Your task to perform on an android device: Open Google Chrome and click the shortcut for Amazon.com Image 0: 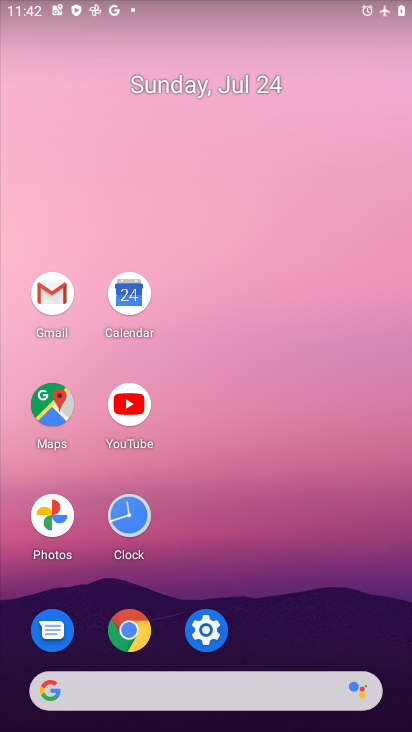
Step 0: click (129, 624)
Your task to perform on an android device: Open Google Chrome and click the shortcut for Amazon.com Image 1: 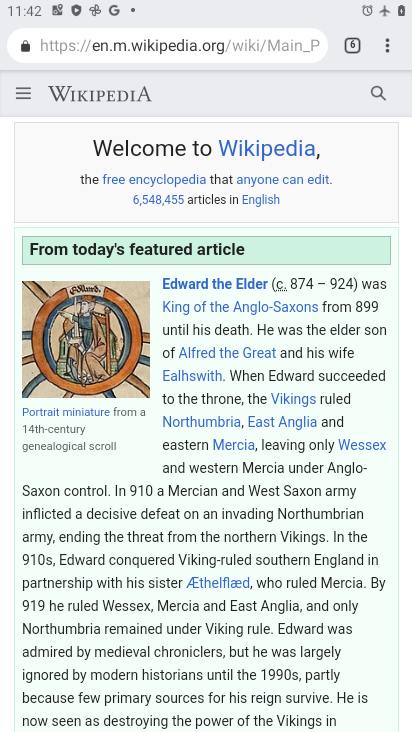
Step 1: click (387, 42)
Your task to perform on an android device: Open Google Chrome and click the shortcut for Amazon.com Image 2: 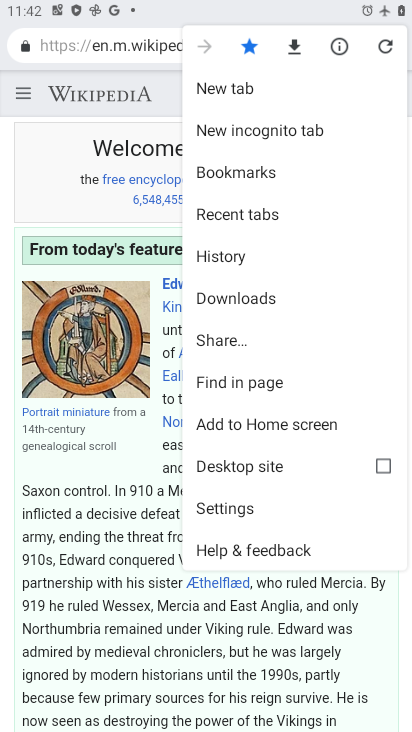
Step 2: click (231, 83)
Your task to perform on an android device: Open Google Chrome and click the shortcut for Amazon.com Image 3: 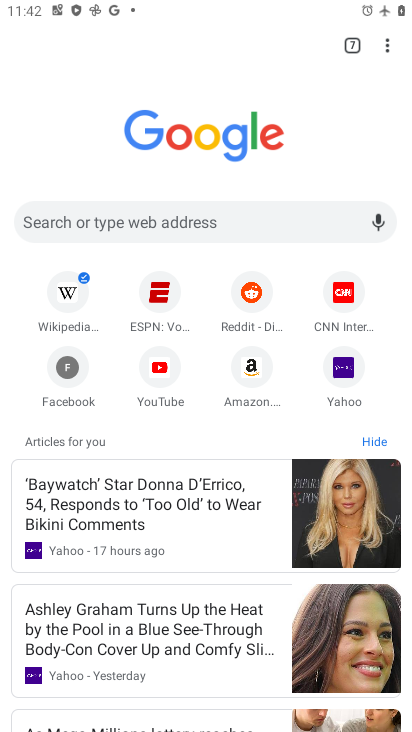
Step 3: click (246, 364)
Your task to perform on an android device: Open Google Chrome and click the shortcut for Amazon.com Image 4: 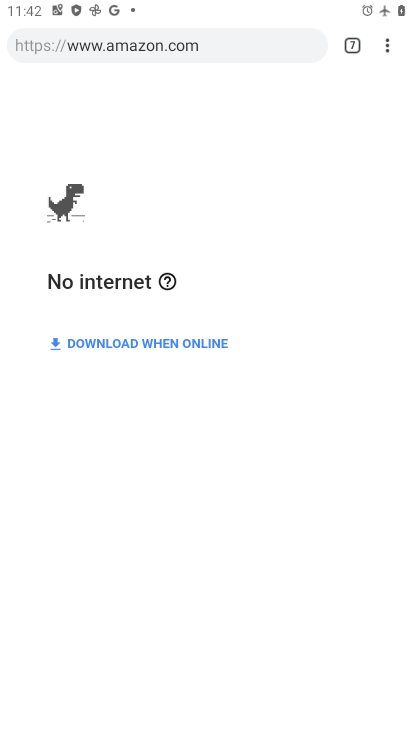
Step 4: task complete